Your task to perform on an android device: Search for Mexican restaurants on Maps Image 0: 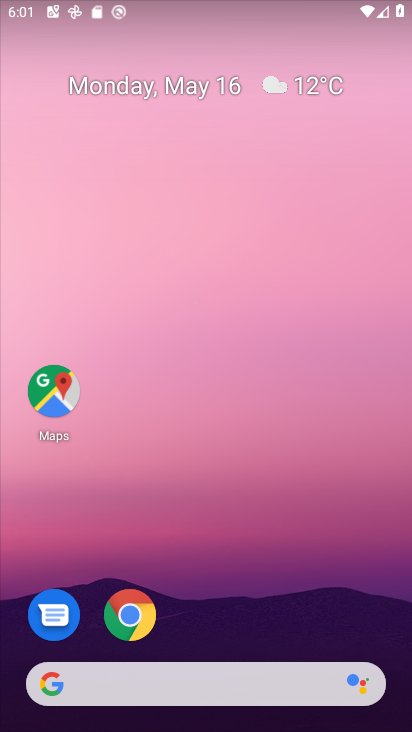
Step 0: click (54, 409)
Your task to perform on an android device: Search for Mexican restaurants on Maps Image 1: 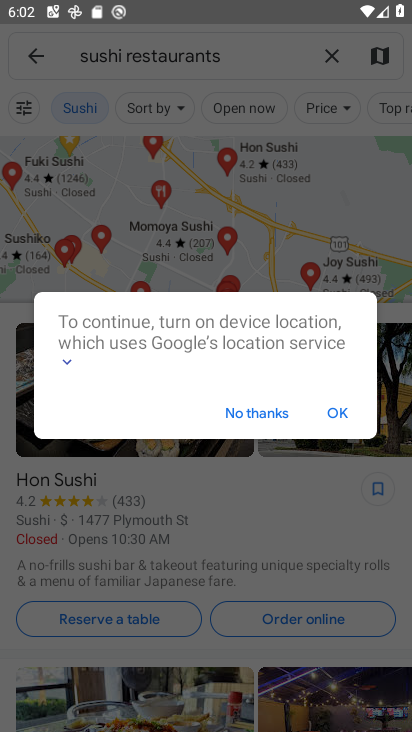
Step 1: click (256, 411)
Your task to perform on an android device: Search for Mexican restaurants on Maps Image 2: 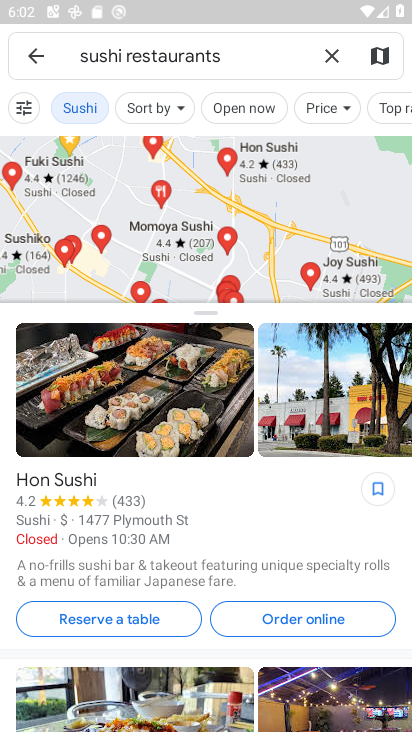
Step 2: click (338, 58)
Your task to perform on an android device: Search for Mexican restaurants on Maps Image 3: 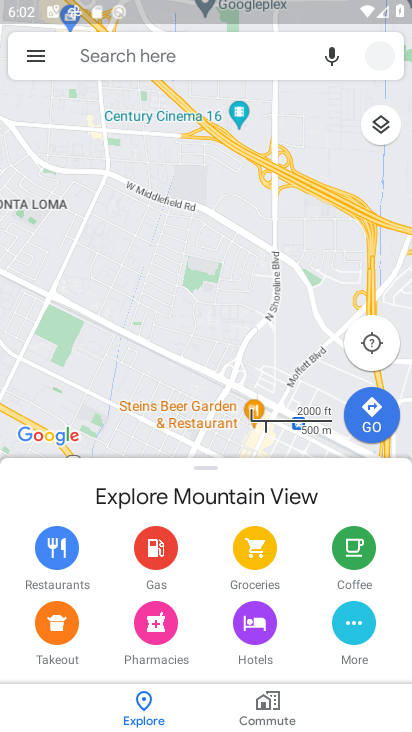
Step 3: click (198, 51)
Your task to perform on an android device: Search for Mexican restaurants on Maps Image 4: 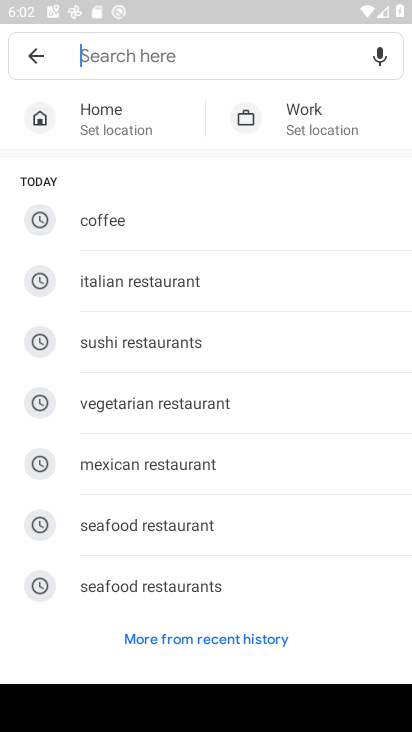
Step 4: click (207, 472)
Your task to perform on an android device: Search for Mexican restaurants on Maps Image 5: 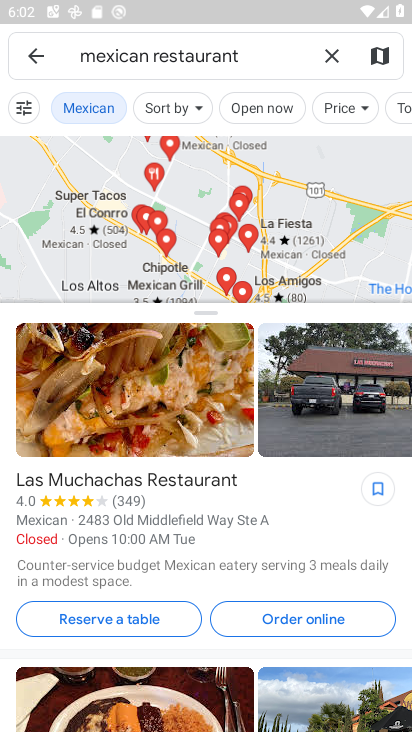
Step 5: task complete